Your task to perform on an android device: open a bookmark in the chrome app Image 0: 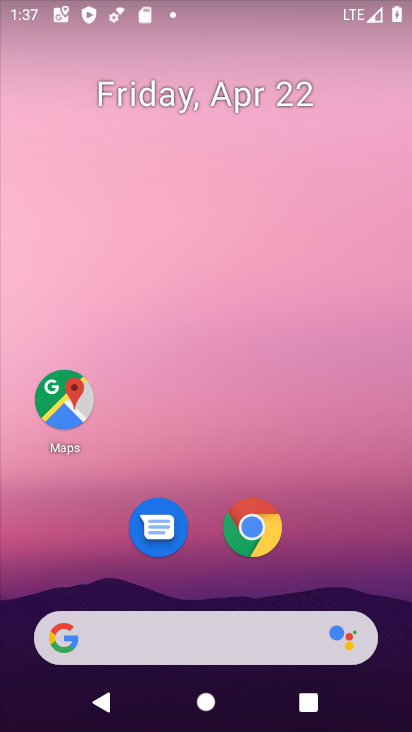
Step 0: click (251, 539)
Your task to perform on an android device: open a bookmark in the chrome app Image 1: 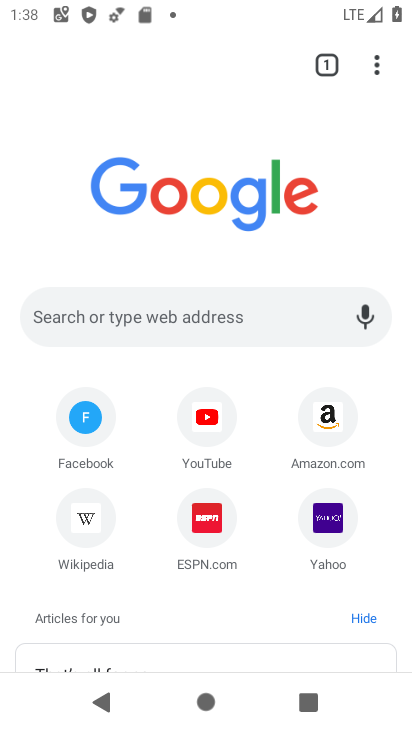
Step 1: click (379, 66)
Your task to perform on an android device: open a bookmark in the chrome app Image 2: 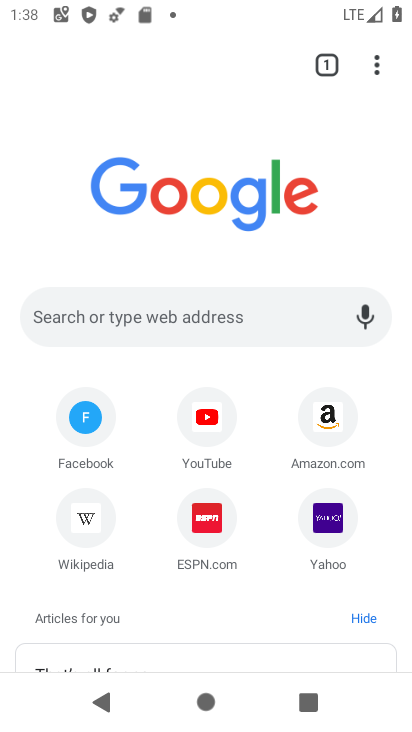
Step 2: task complete